Your task to perform on an android device: Open location settings Image 0: 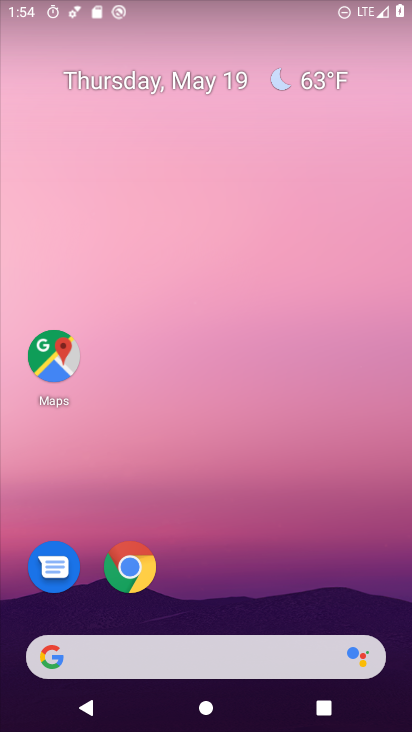
Step 0: press home button
Your task to perform on an android device: Open location settings Image 1: 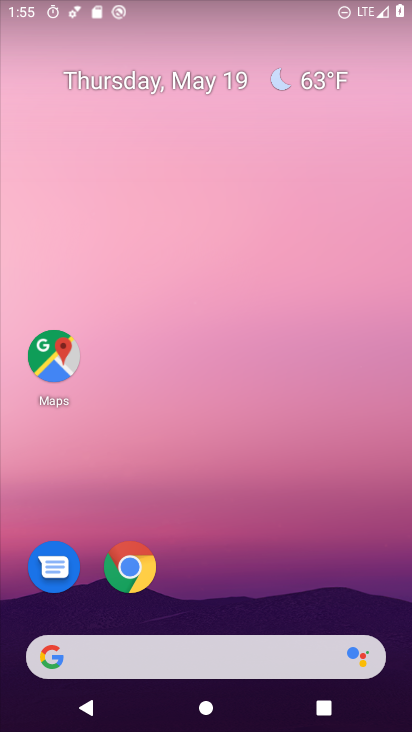
Step 1: drag from (110, 656) to (256, 243)
Your task to perform on an android device: Open location settings Image 2: 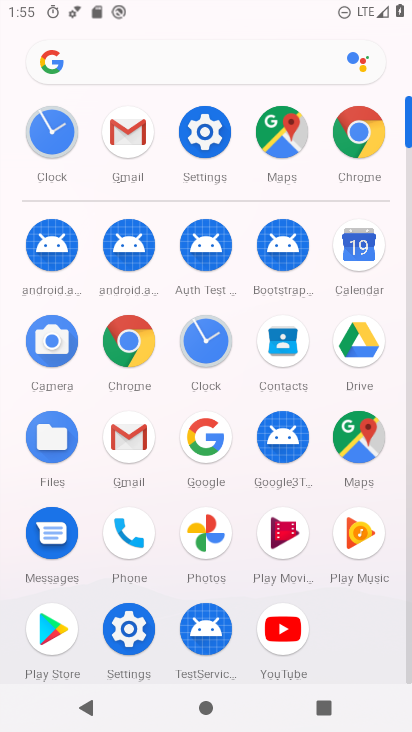
Step 2: click (208, 130)
Your task to perform on an android device: Open location settings Image 3: 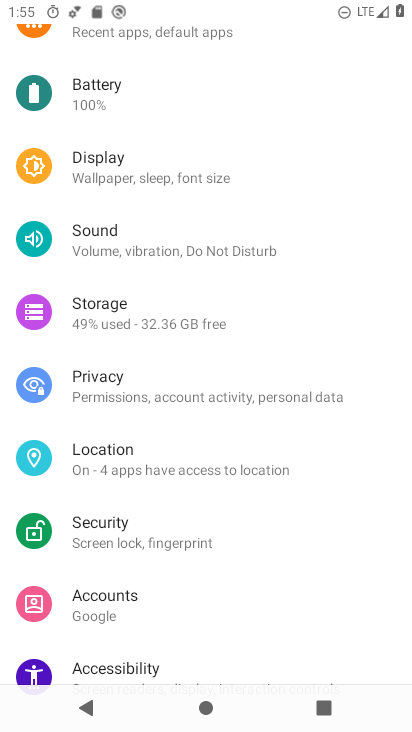
Step 3: click (116, 463)
Your task to perform on an android device: Open location settings Image 4: 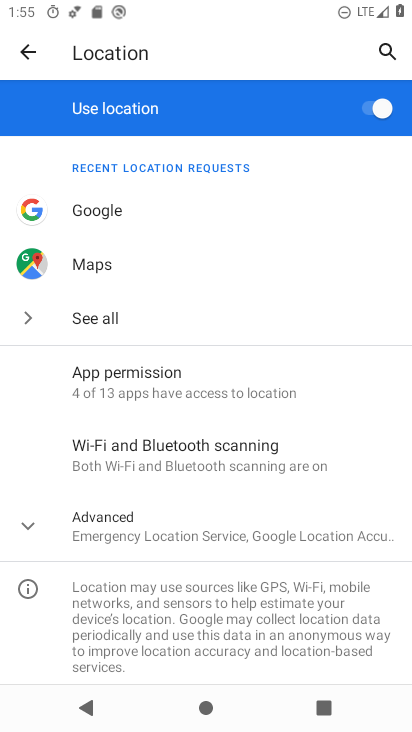
Step 4: task complete